Your task to perform on an android device: Open Google Chrome and open the bookmarks view Image 0: 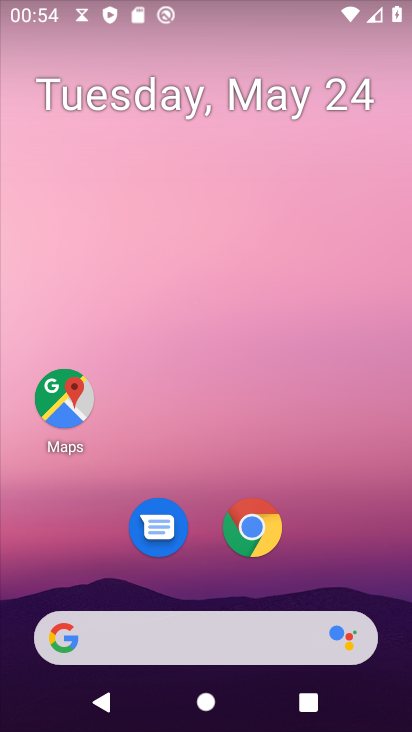
Step 0: click (246, 540)
Your task to perform on an android device: Open Google Chrome and open the bookmarks view Image 1: 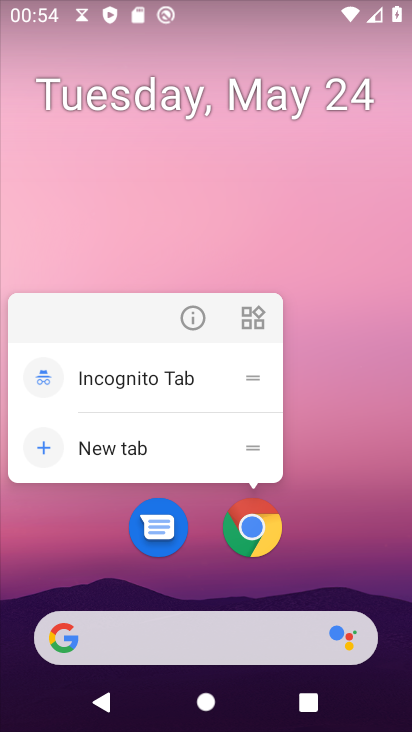
Step 1: click (246, 540)
Your task to perform on an android device: Open Google Chrome and open the bookmarks view Image 2: 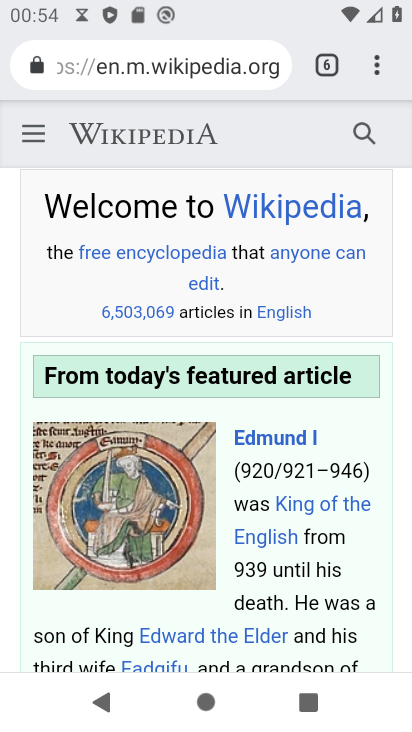
Step 2: task complete